Your task to perform on an android device: uninstall "Pinterest" Image 0: 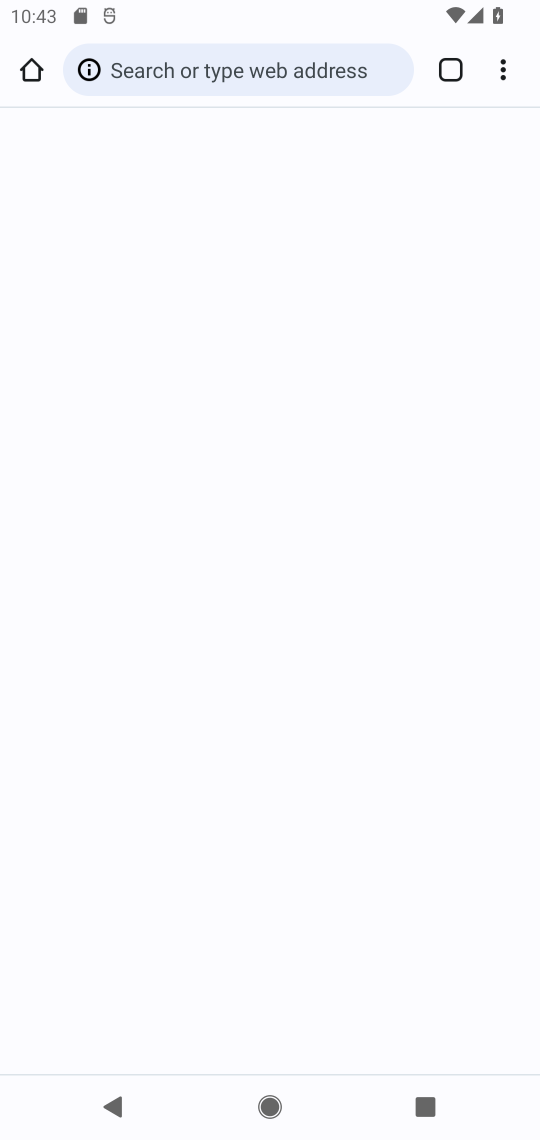
Step 0: click (219, 95)
Your task to perform on an android device: uninstall "Pinterest" Image 1: 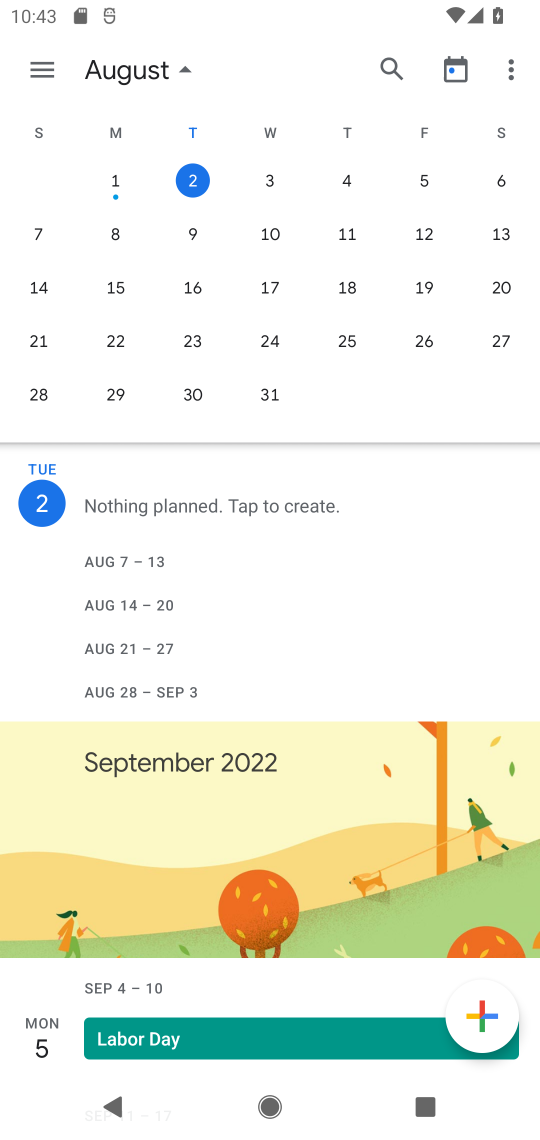
Step 1: press home button
Your task to perform on an android device: uninstall "Pinterest" Image 2: 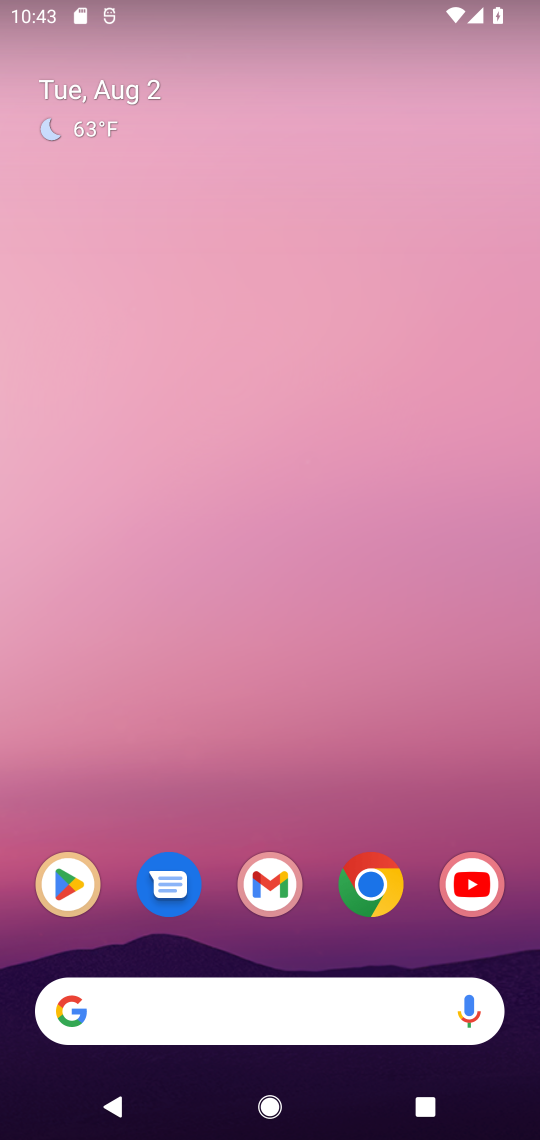
Step 2: click (64, 869)
Your task to perform on an android device: uninstall "Pinterest" Image 3: 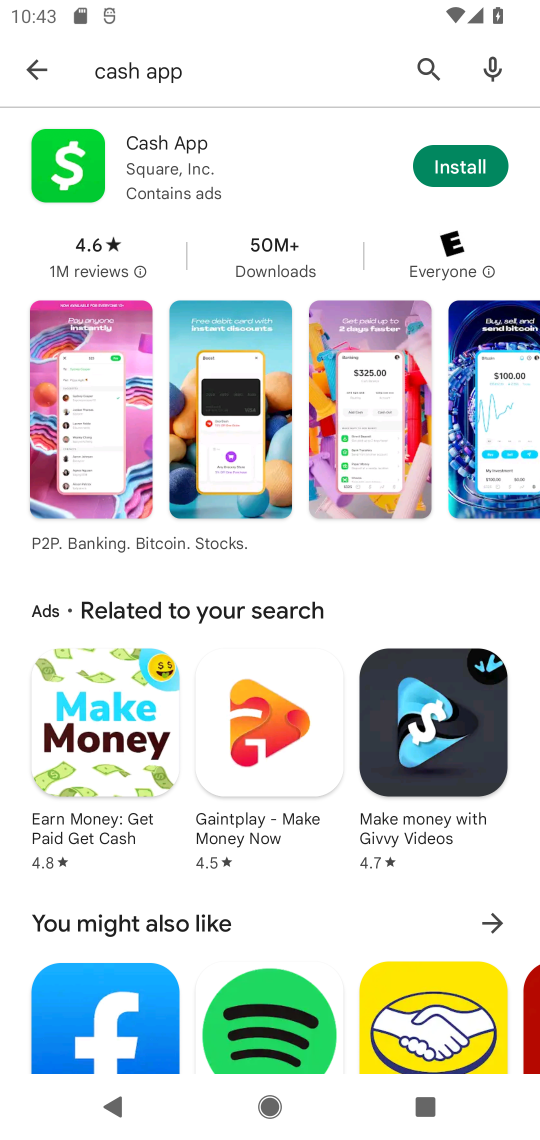
Step 3: click (183, 73)
Your task to perform on an android device: uninstall "Pinterest" Image 4: 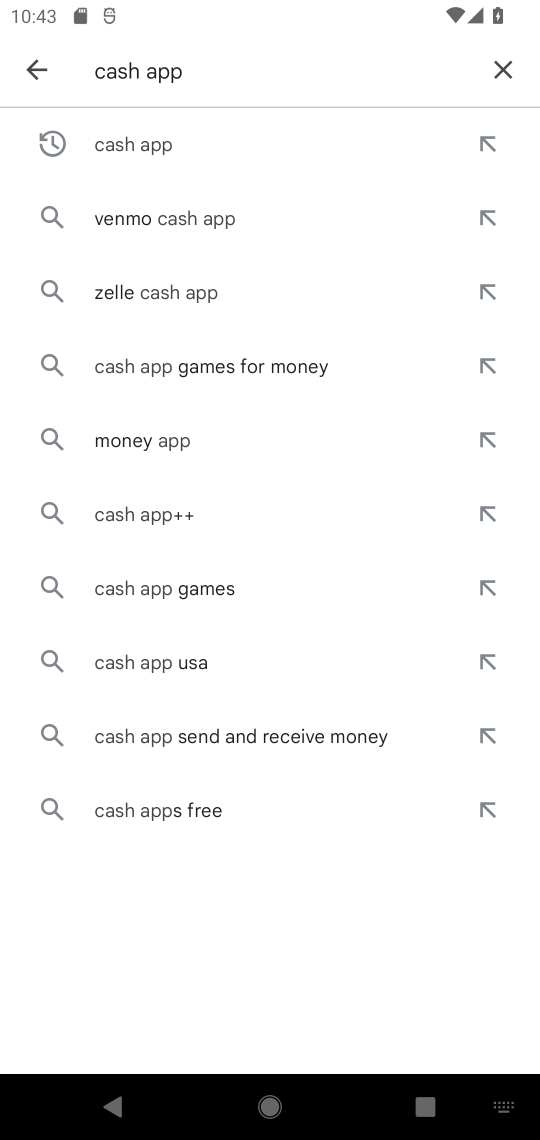
Step 4: click (495, 72)
Your task to perform on an android device: uninstall "Pinterest" Image 5: 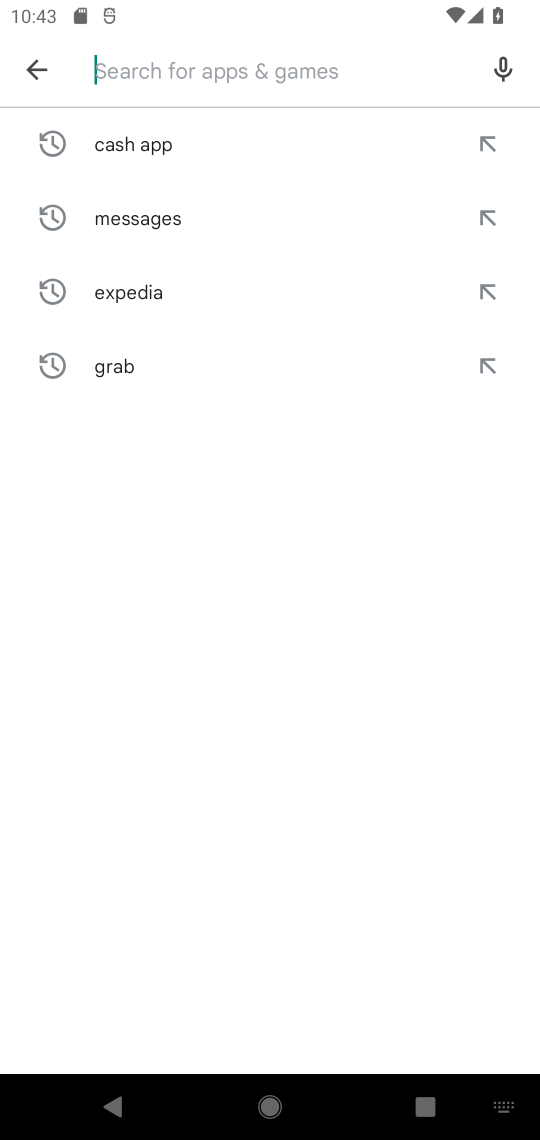
Step 5: type "Pinterest"
Your task to perform on an android device: uninstall "Pinterest" Image 6: 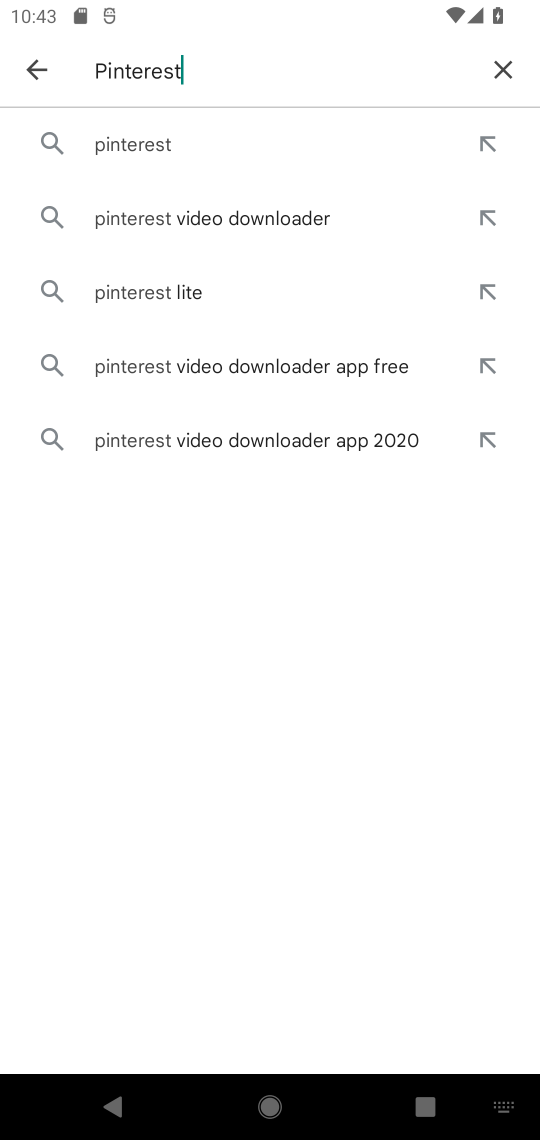
Step 6: click (136, 143)
Your task to perform on an android device: uninstall "Pinterest" Image 7: 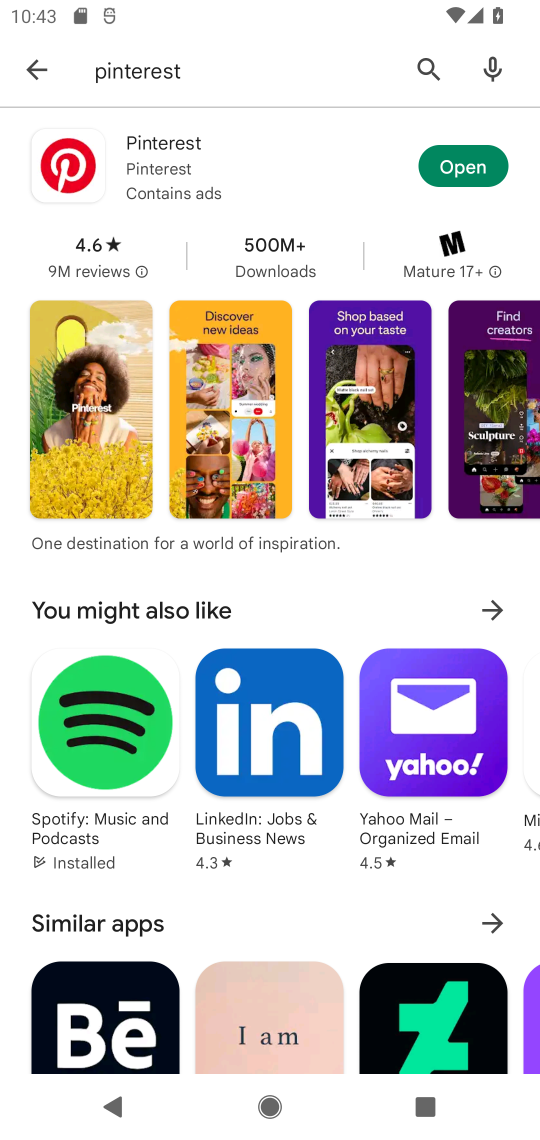
Step 7: click (67, 179)
Your task to perform on an android device: uninstall "Pinterest" Image 8: 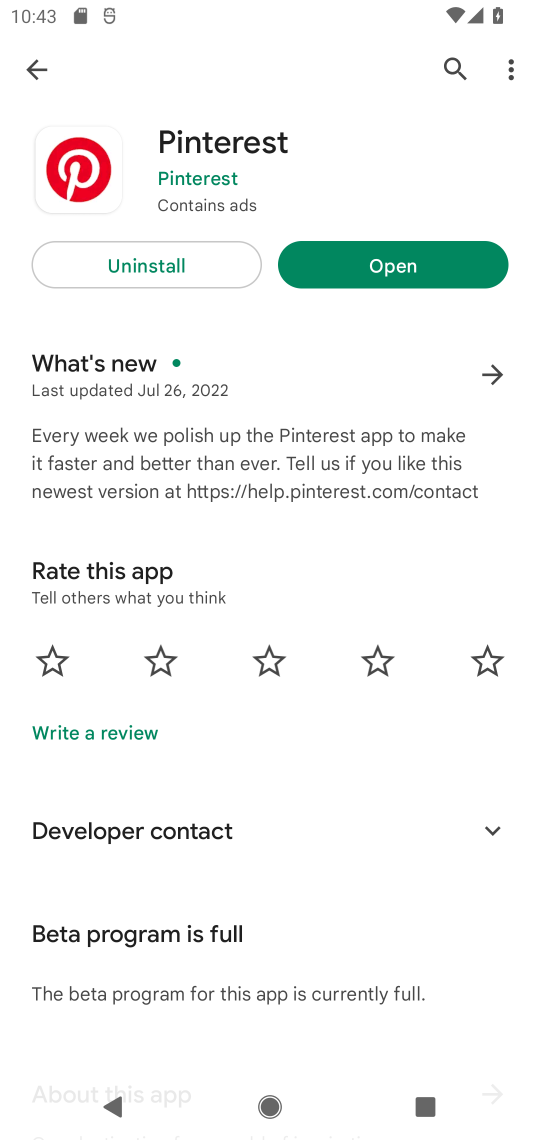
Step 8: click (168, 260)
Your task to perform on an android device: uninstall "Pinterest" Image 9: 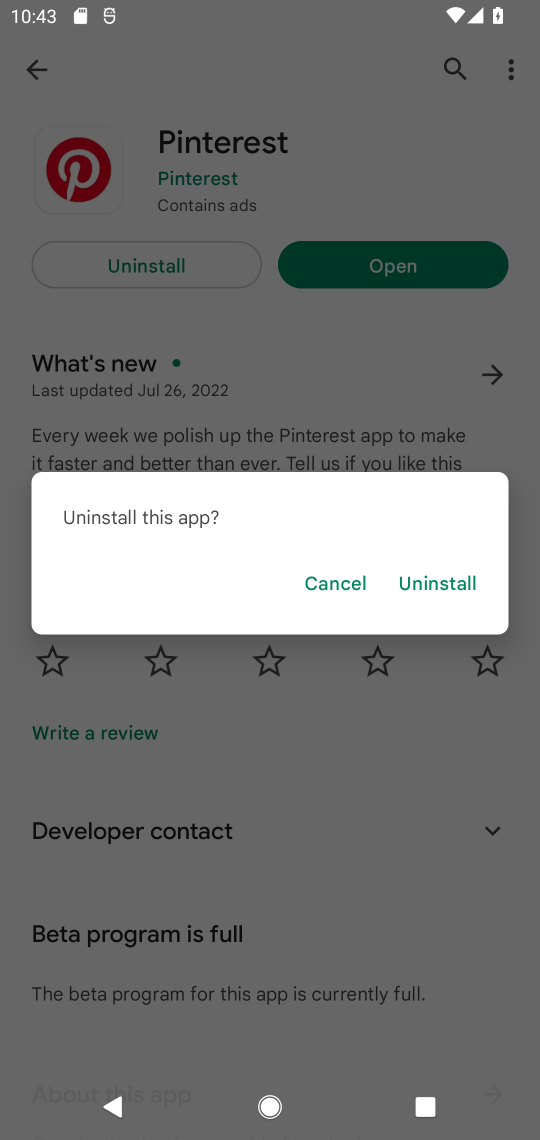
Step 9: click (443, 582)
Your task to perform on an android device: uninstall "Pinterest" Image 10: 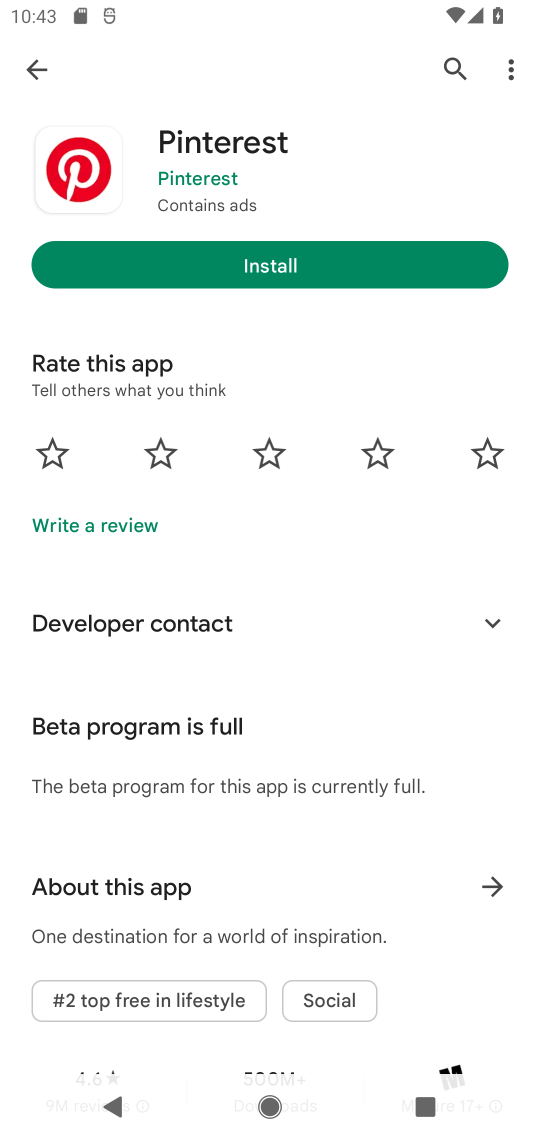
Step 10: task complete